Your task to perform on an android device: add a label to a message in the gmail app Image 0: 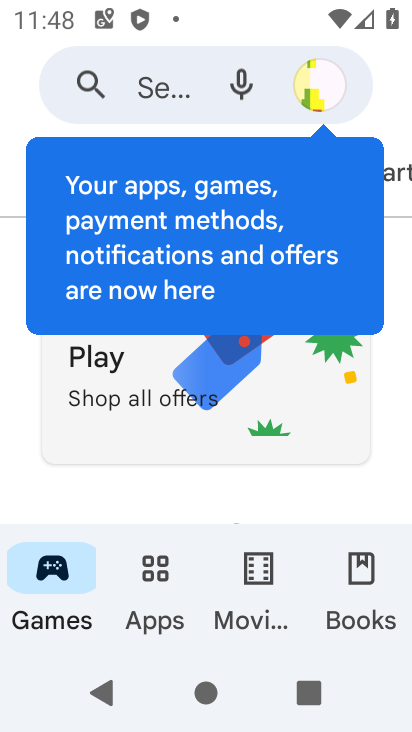
Step 0: press home button
Your task to perform on an android device: add a label to a message in the gmail app Image 1: 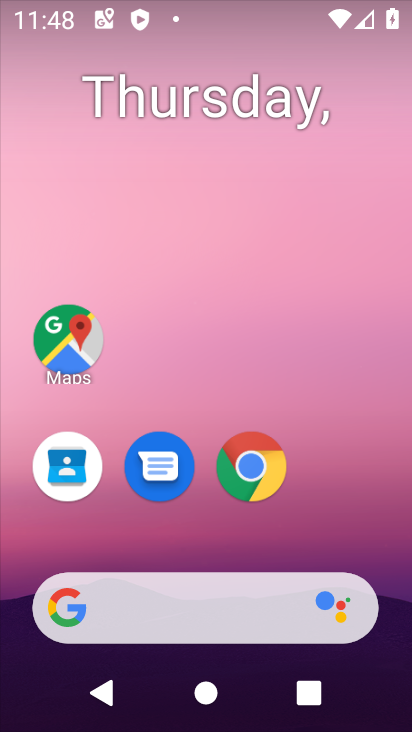
Step 1: drag from (293, 532) to (226, 4)
Your task to perform on an android device: add a label to a message in the gmail app Image 2: 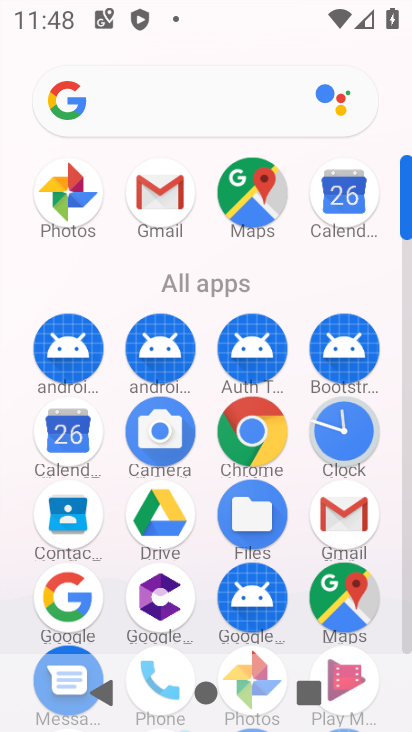
Step 2: click (362, 521)
Your task to perform on an android device: add a label to a message in the gmail app Image 3: 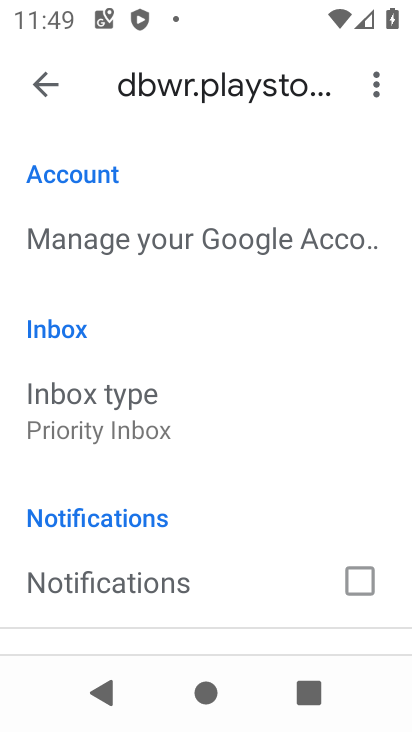
Step 3: drag from (264, 601) to (297, 196)
Your task to perform on an android device: add a label to a message in the gmail app Image 4: 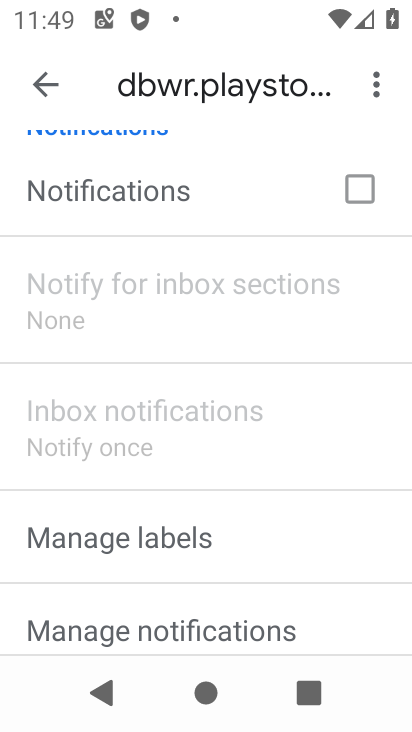
Step 4: drag from (236, 529) to (229, 277)
Your task to perform on an android device: add a label to a message in the gmail app Image 5: 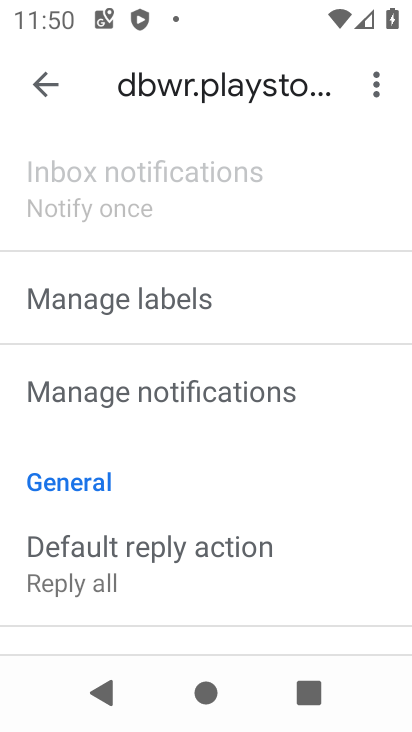
Step 5: drag from (265, 535) to (246, 269)
Your task to perform on an android device: add a label to a message in the gmail app Image 6: 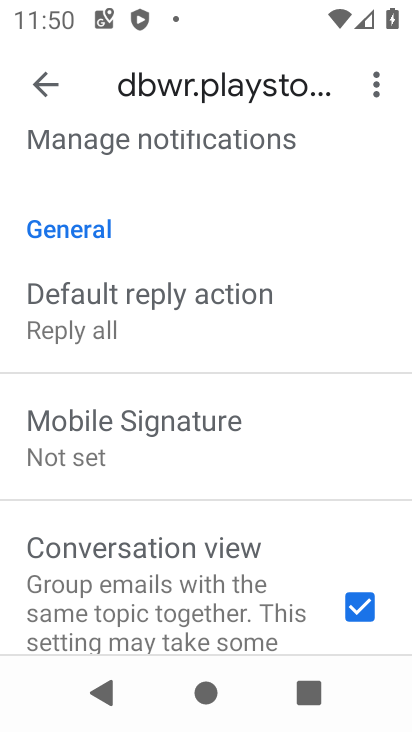
Step 6: drag from (212, 300) to (212, 644)
Your task to perform on an android device: add a label to a message in the gmail app Image 7: 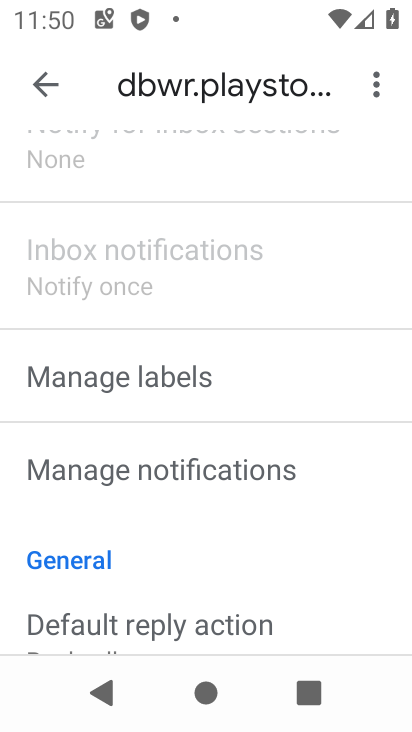
Step 7: drag from (217, 345) to (214, 728)
Your task to perform on an android device: add a label to a message in the gmail app Image 8: 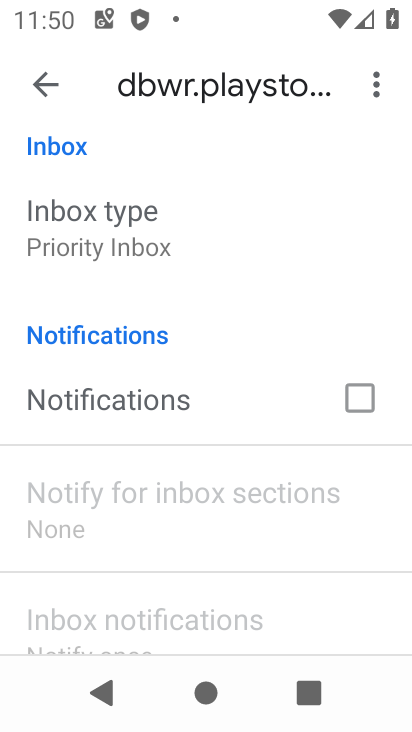
Step 8: click (42, 82)
Your task to perform on an android device: add a label to a message in the gmail app Image 9: 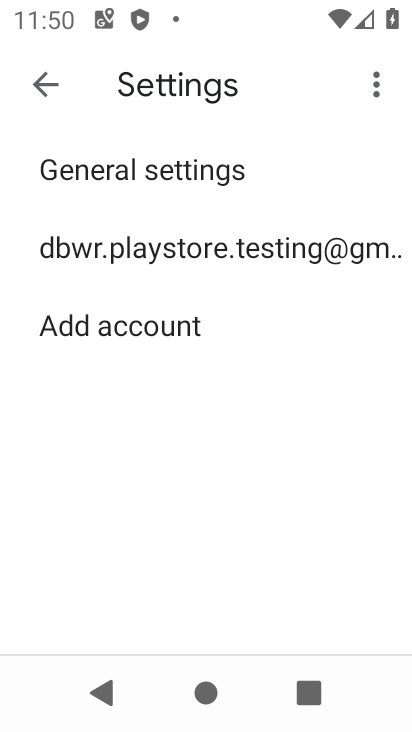
Step 9: click (138, 249)
Your task to perform on an android device: add a label to a message in the gmail app Image 10: 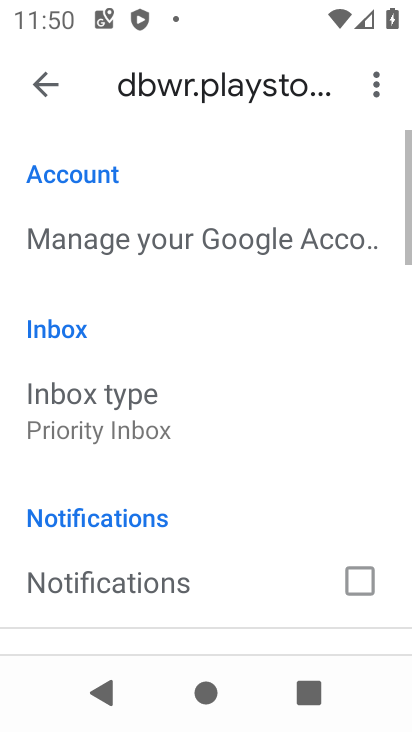
Step 10: click (51, 80)
Your task to perform on an android device: add a label to a message in the gmail app Image 11: 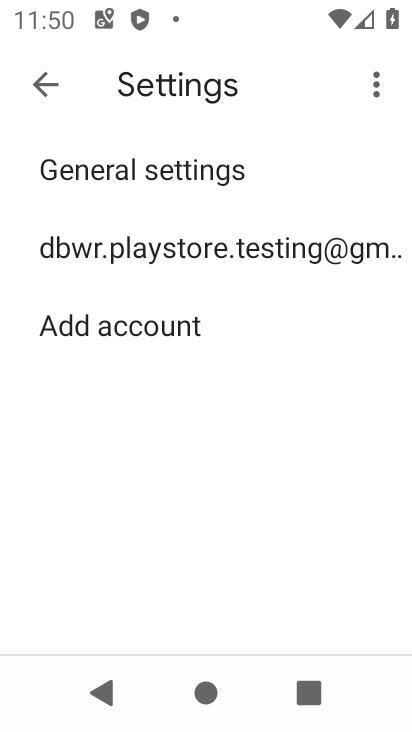
Step 11: click (51, 80)
Your task to perform on an android device: add a label to a message in the gmail app Image 12: 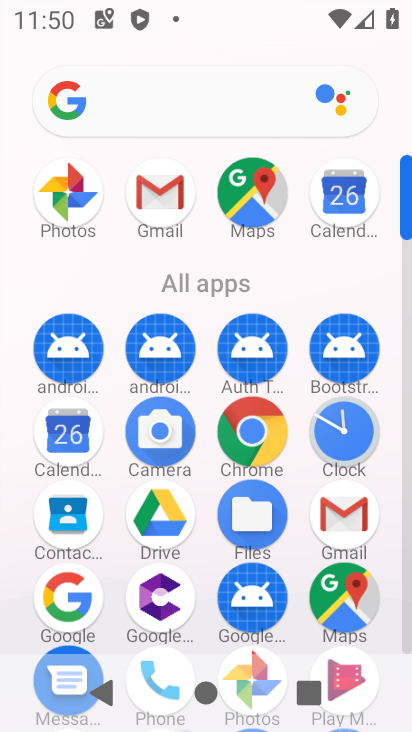
Step 12: click (157, 191)
Your task to perform on an android device: add a label to a message in the gmail app Image 13: 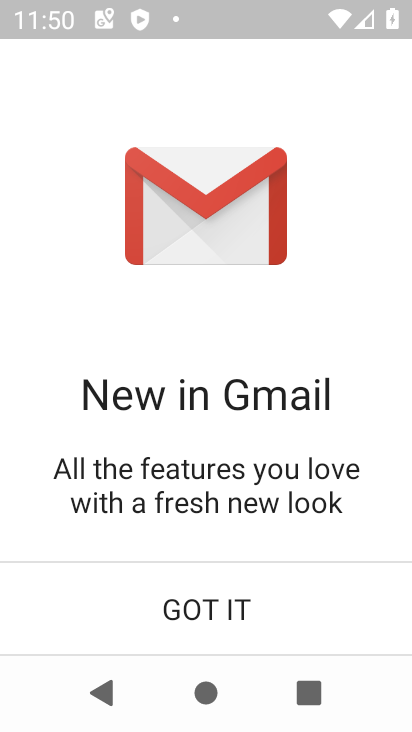
Step 13: click (211, 605)
Your task to perform on an android device: add a label to a message in the gmail app Image 14: 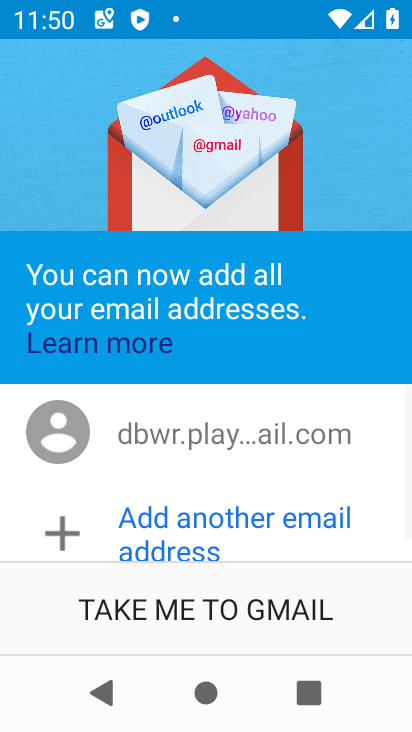
Step 14: click (237, 616)
Your task to perform on an android device: add a label to a message in the gmail app Image 15: 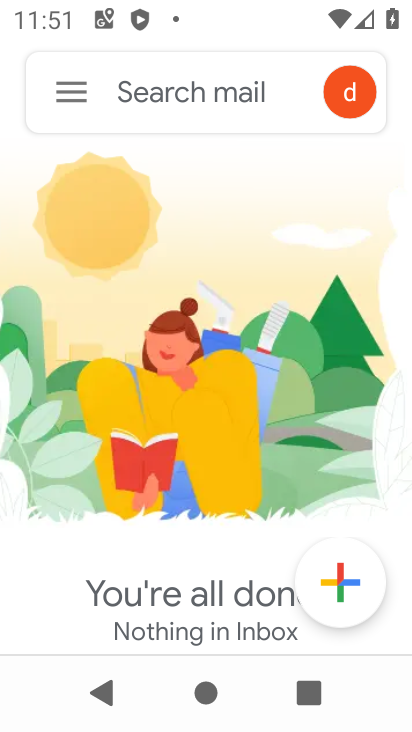
Step 15: click (70, 103)
Your task to perform on an android device: add a label to a message in the gmail app Image 16: 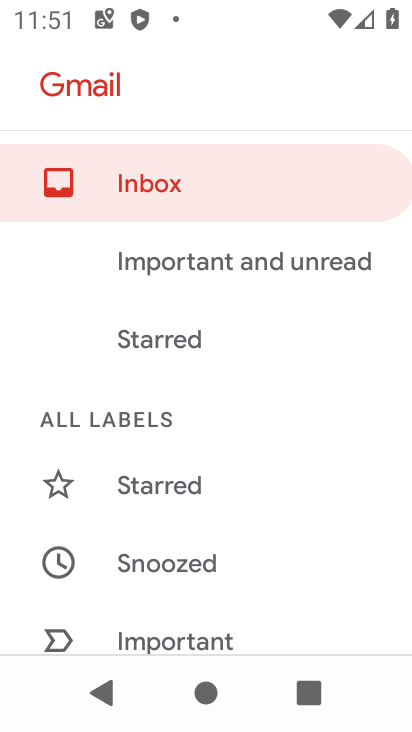
Step 16: click (146, 184)
Your task to perform on an android device: add a label to a message in the gmail app Image 17: 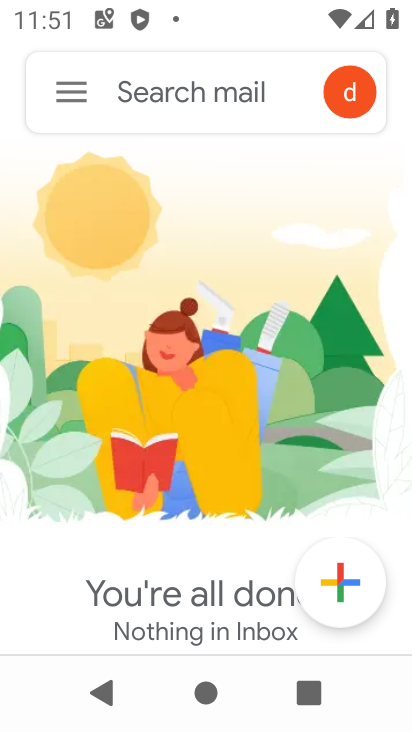
Step 17: task complete